Your task to perform on an android device: make emails show in primary in the gmail app Image 0: 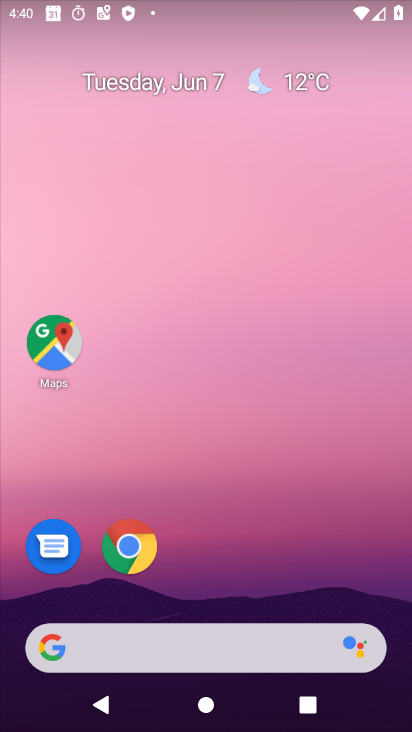
Step 0: drag from (165, 600) to (162, 144)
Your task to perform on an android device: make emails show in primary in the gmail app Image 1: 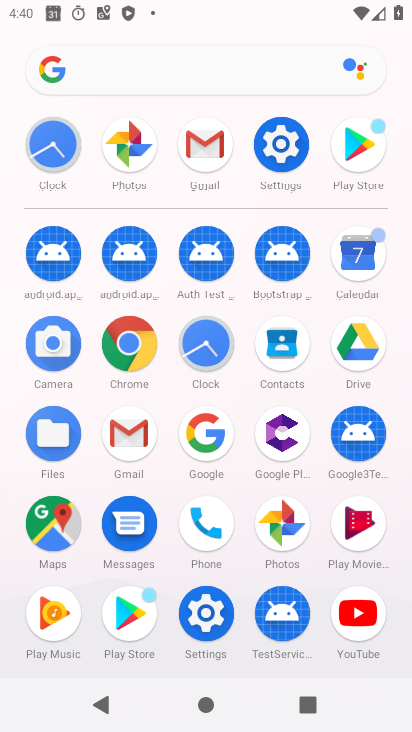
Step 1: click (221, 170)
Your task to perform on an android device: make emails show in primary in the gmail app Image 2: 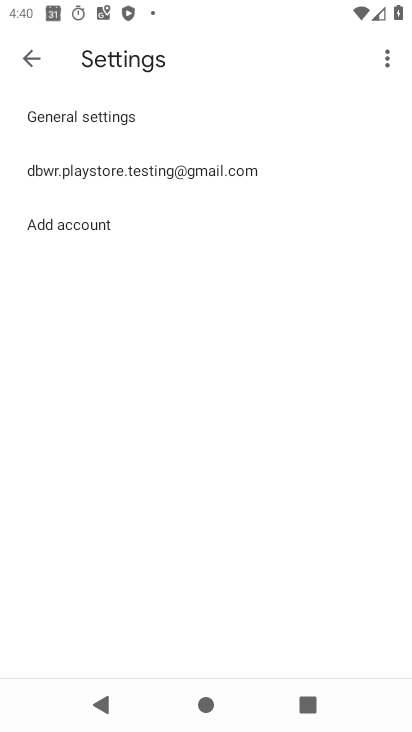
Step 2: click (18, 66)
Your task to perform on an android device: make emails show in primary in the gmail app Image 3: 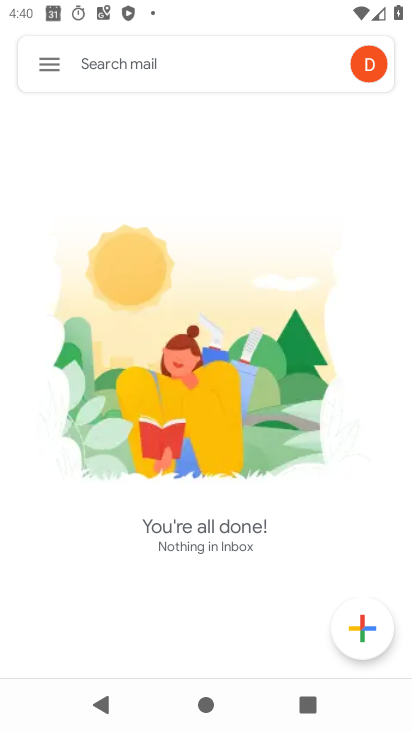
Step 3: click (18, 66)
Your task to perform on an android device: make emails show in primary in the gmail app Image 4: 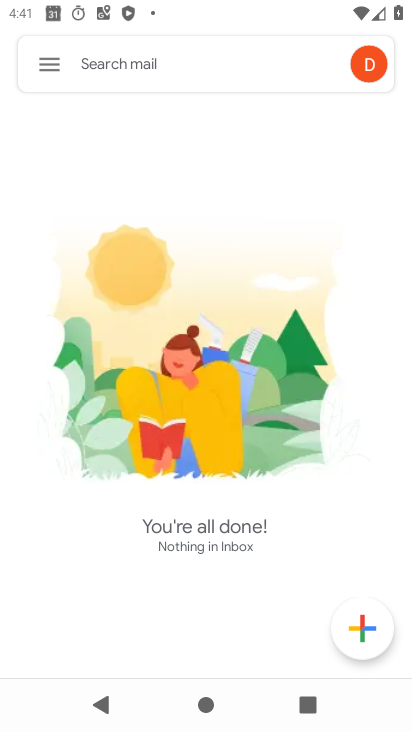
Step 4: click (40, 62)
Your task to perform on an android device: make emails show in primary in the gmail app Image 5: 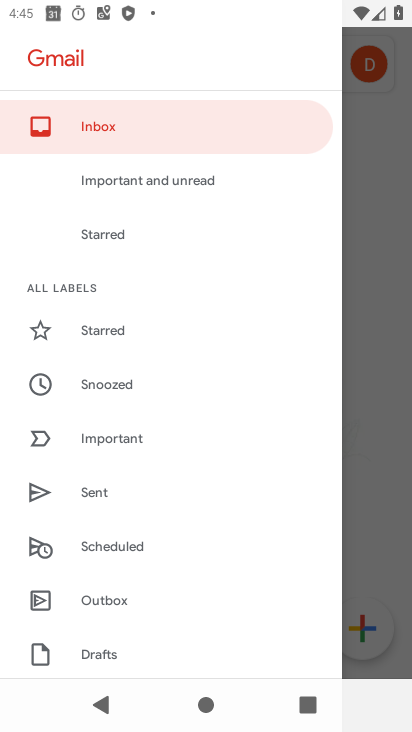
Step 5: task complete